Your task to perform on an android device: Go to wifi settings Image 0: 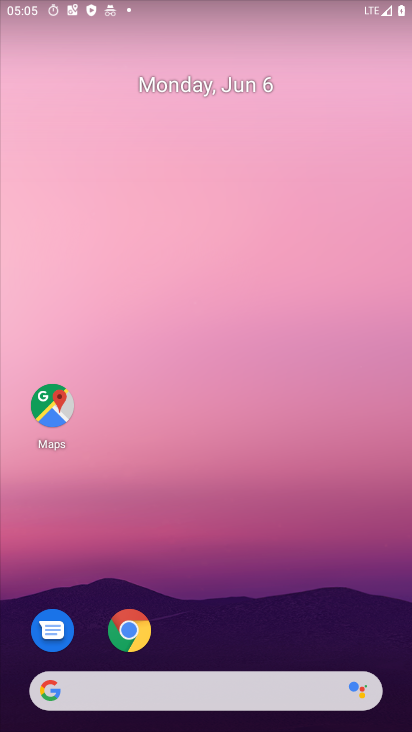
Step 0: drag from (243, 9) to (279, 643)
Your task to perform on an android device: Go to wifi settings Image 1: 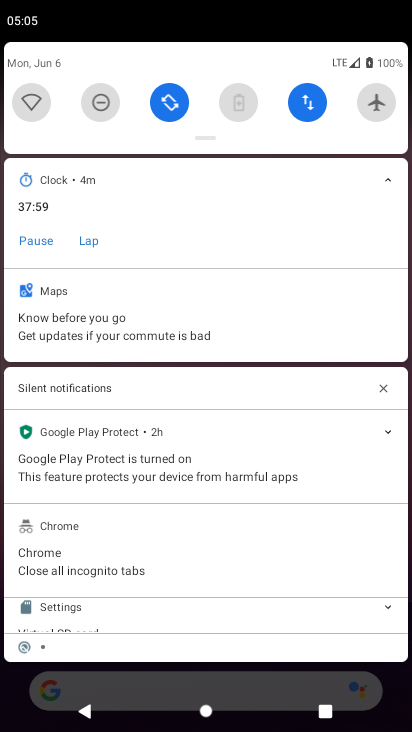
Step 1: click (28, 101)
Your task to perform on an android device: Go to wifi settings Image 2: 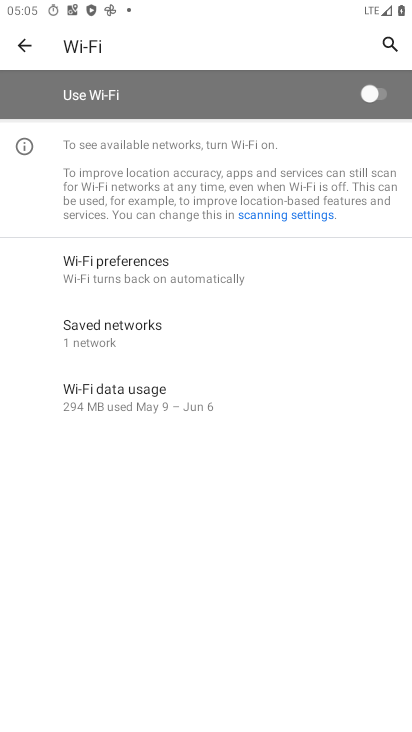
Step 2: task complete